Your task to perform on an android device: Find coffee shops on Maps Image 0: 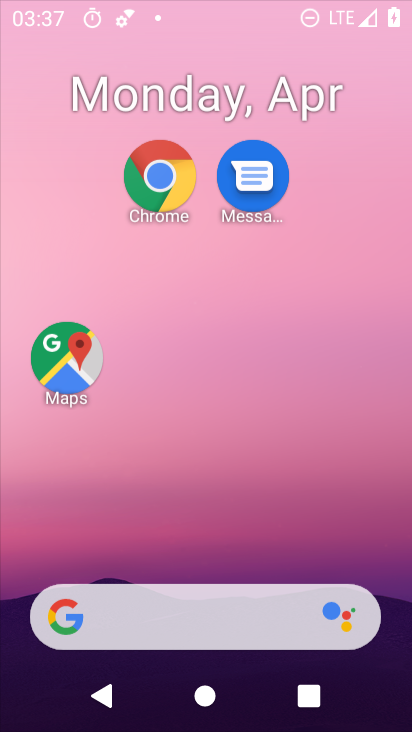
Step 0: click (345, 5)
Your task to perform on an android device: Find coffee shops on Maps Image 1: 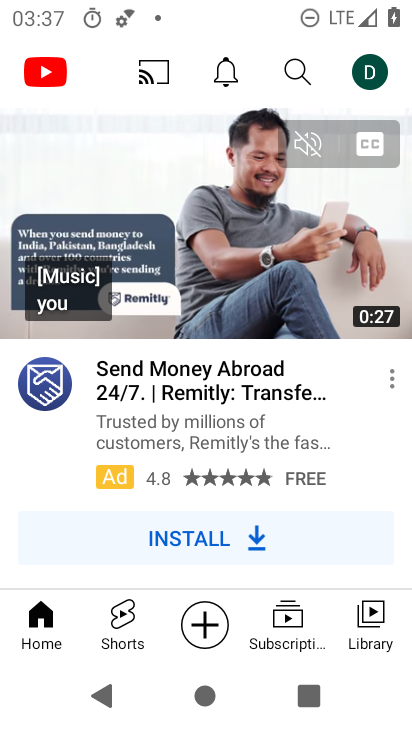
Step 1: press home button
Your task to perform on an android device: Find coffee shops on Maps Image 2: 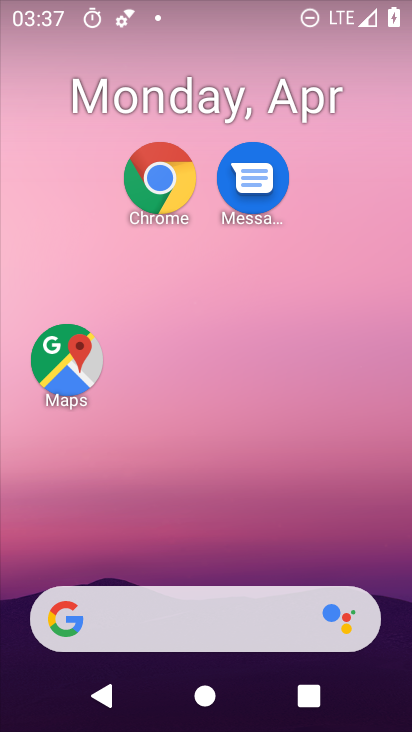
Step 2: drag from (269, 572) to (291, 5)
Your task to perform on an android device: Find coffee shops on Maps Image 3: 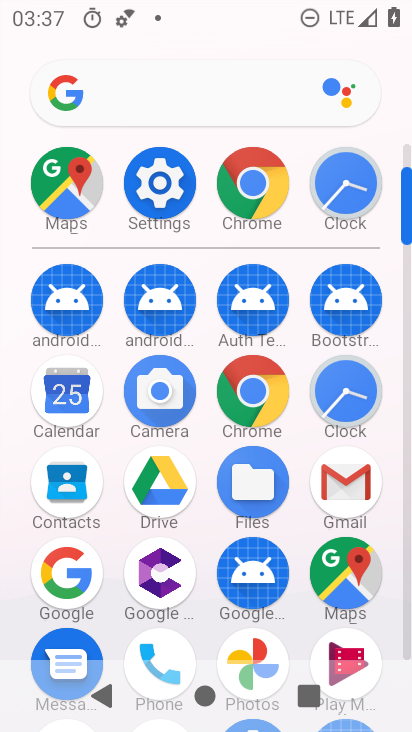
Step 3: click (343, 572)
Your task to perform on an android device: Find coffee shops on Maps Image 4: 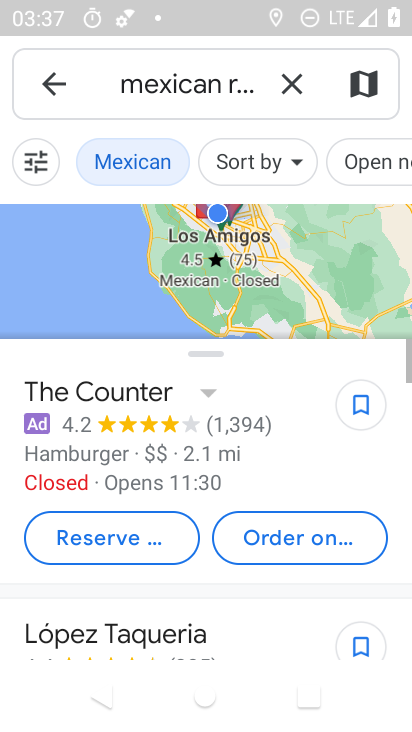
Step 4: click (290, 77)
Your task to perform on an android device: Find coffee shops on Maps Image 5: 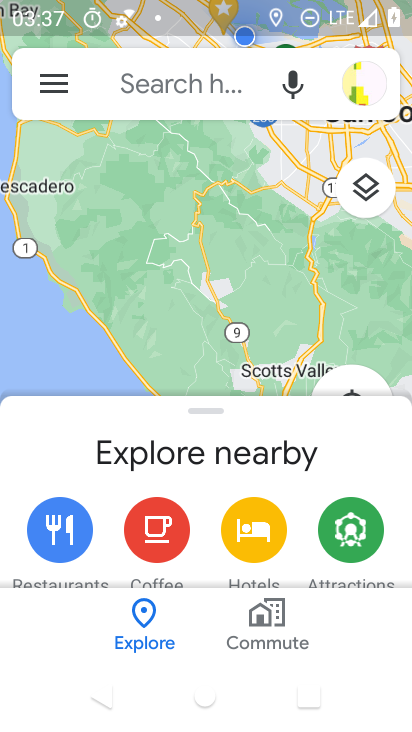
Step 5: click (126, 91)
Your task to perform on an android device: Find coffee shops on Maps Image 6: 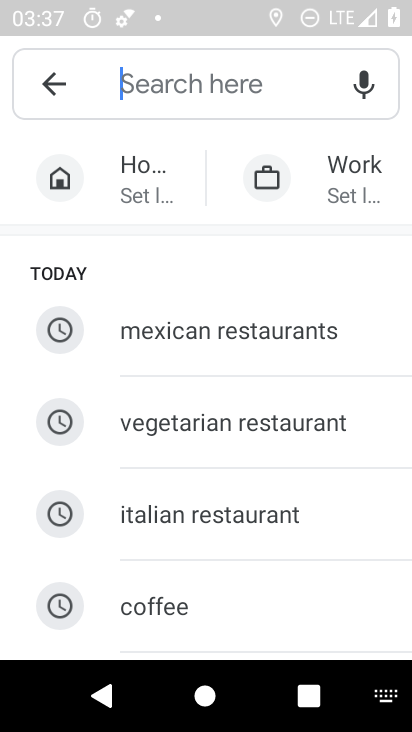
Step 6: type "coffee shop"
Your task to perform on an android device: Find coffee shops on Maps Image 7: 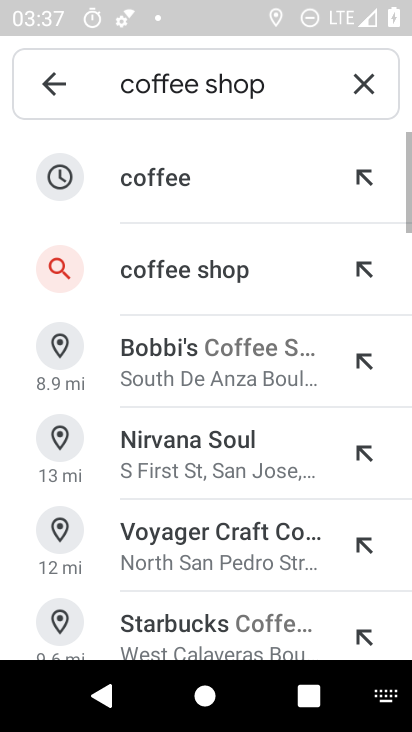
Step 7: click (202, 276)
Your task to perform on an android device: Find coffee shops on Maps Image 8: 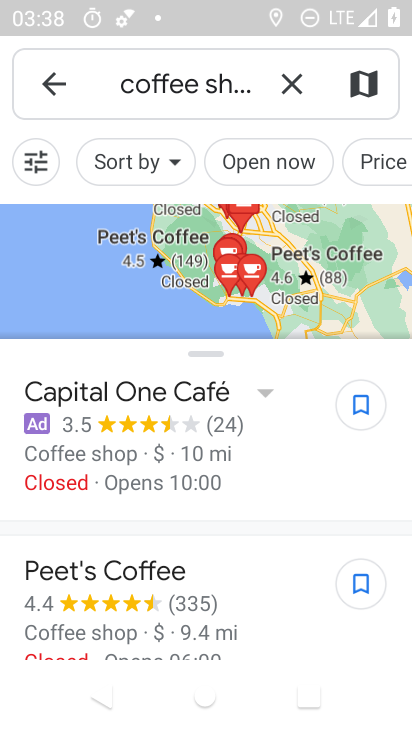
Step 8: task complete